Your task to perform on an android device: Show me popular videos on Youtube Image 0: 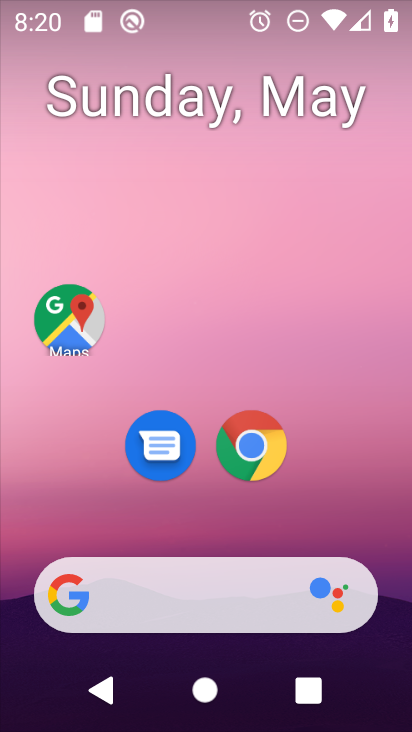
Step 0: drag from (325, 474) to (334, 205)
Your task to perform on an android device: Show me popular videos on Youtube Image 1: 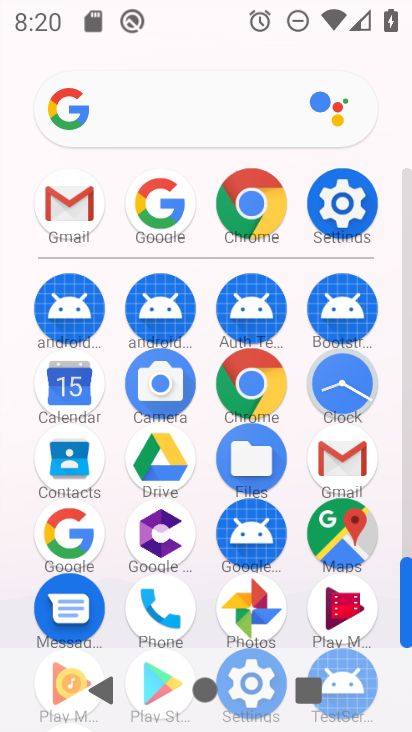
Step 1: drag from (240, 503) to (265, 228)
Your task to perform on an android device: Show me popular videos on Youtube Image 2: 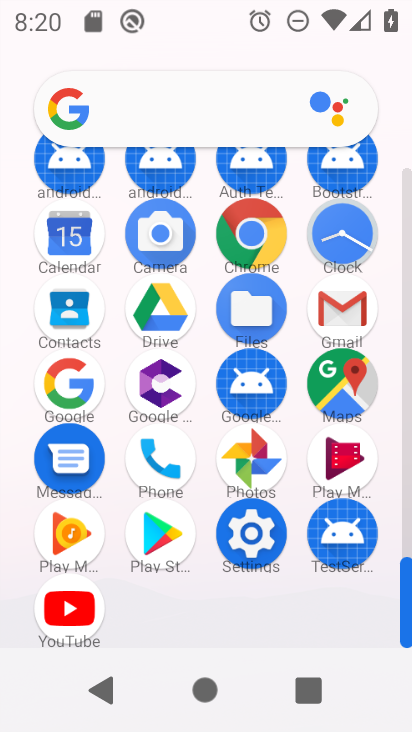
Step 2: click (79, 593)
Your task to perform on an android device: Show me popular videos on Youtube Image 3: 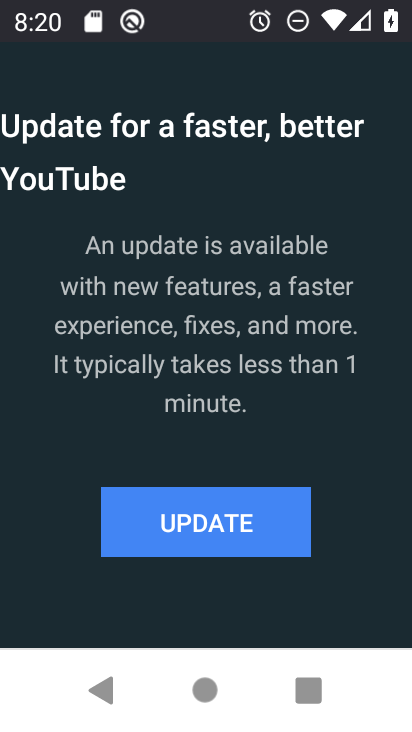
Step 3: task complete